Your task to perform on an android device: Go to internet settings Image 0: 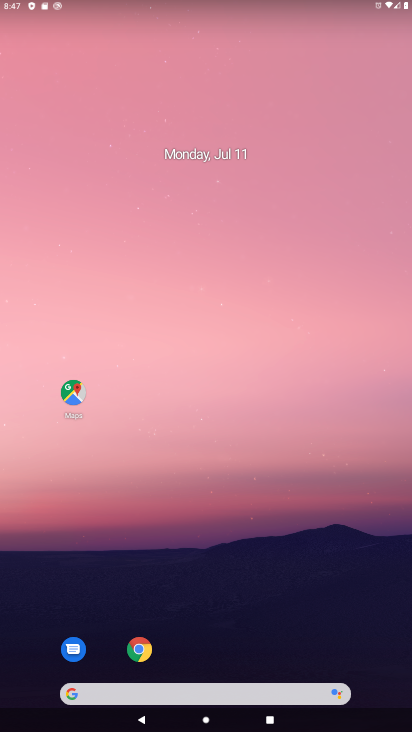
Step 0: drag from (198, 696) to (285, 168)
Your task to perform on an android device: Go to internet settings Image 1: 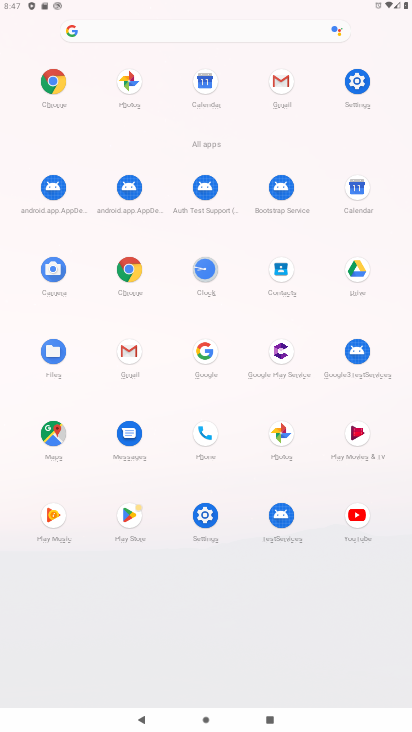
Step 1: click (356, 78)
Your task to perform on an android device: Go to internet settings Image 2: 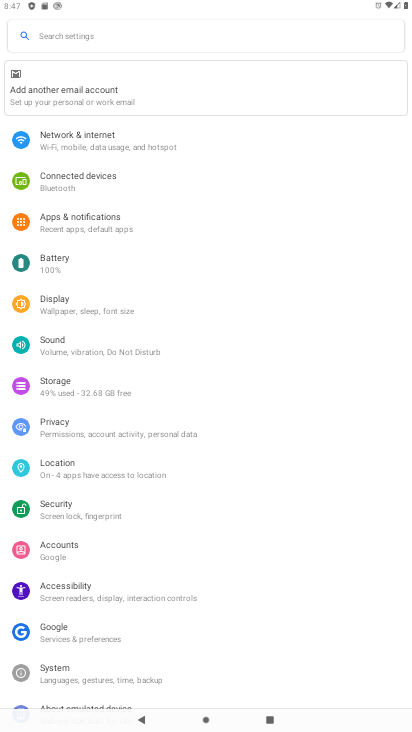
Step 2: click (147, 149)
Your task to perform on an android device: Go to internet settings Image 3: 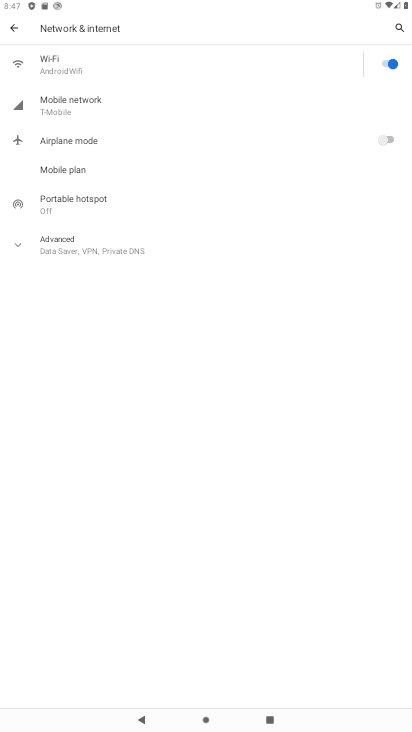
Step 3: task complete